Your task to perform on an android device: set default search engine in the chrome app Image 0: 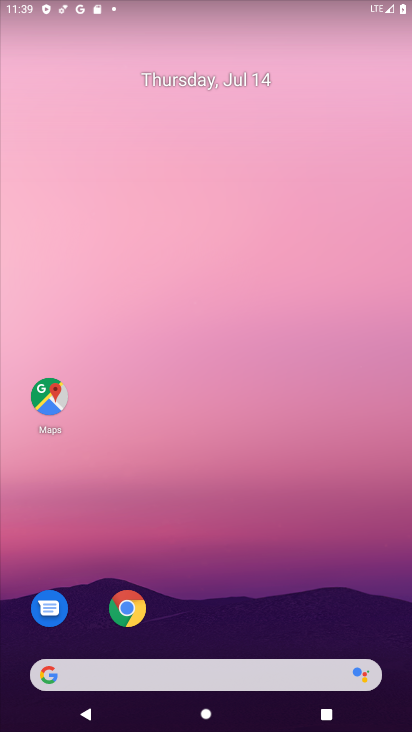
Step 0: drag from (282, 310) to (77, 22)
Your task to perform on an android device: set default search engine in the chrome app Image 1: 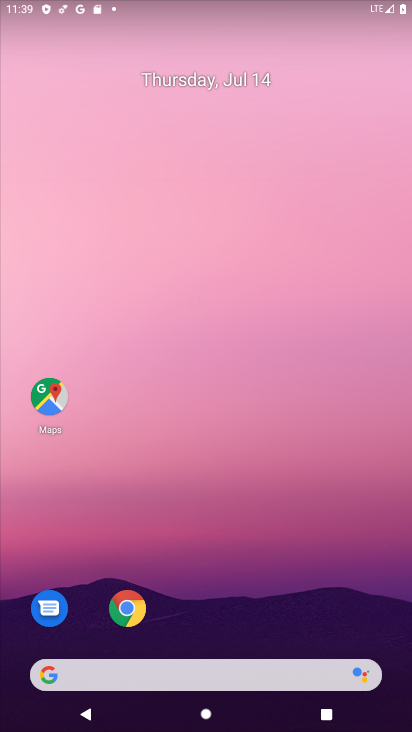
Step 1: drag from (279, 560) to (273, 0)
Your task to perform on an android device: set default search engine in the chrome app Image 2: 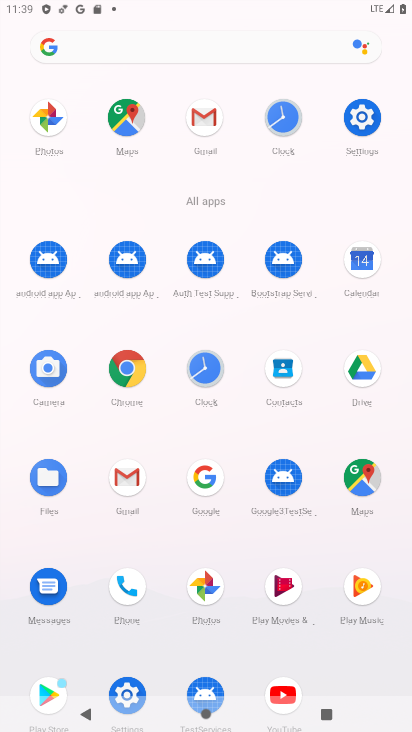
Step 2: click (128, 369)
Your task to perform on an android device: set default search engine in the chrome app Image 3: 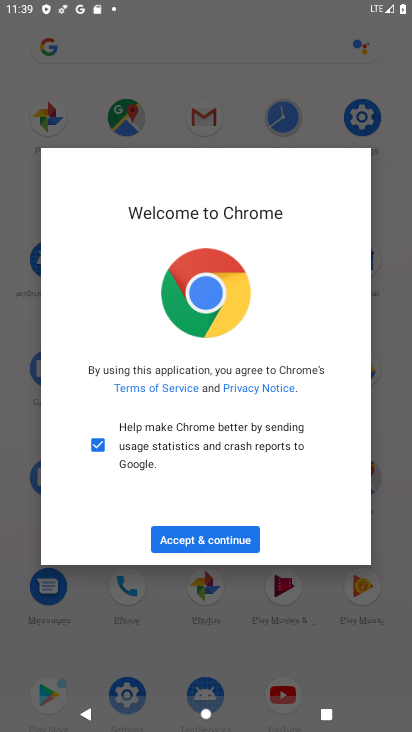
Step 3: click (191, 544)
Your task to perform on an android device: set default search engine in the chrome app Image 4: 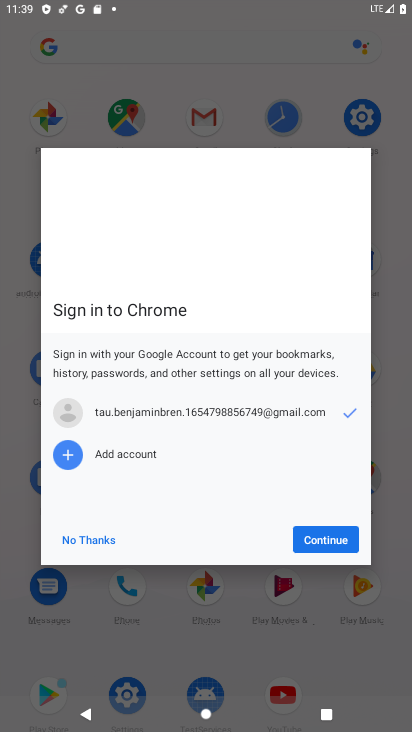
Step 4: click (95, 537)
Your task to perform on an android device: set default search engine in the chrome app Image 5: 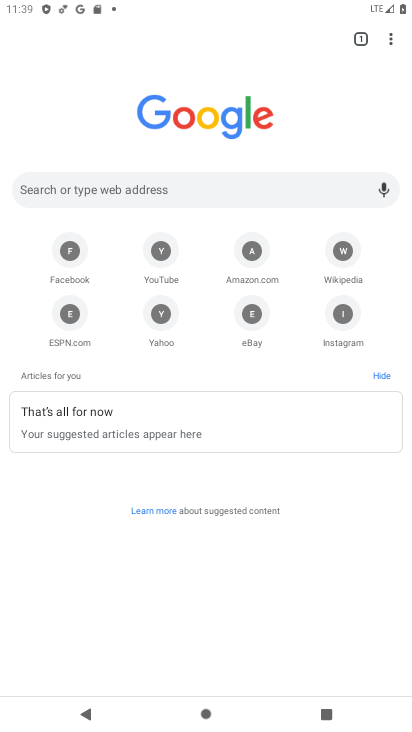
Step 5: drag from (395, 34) to (250, 328)
Your task to perform on an android device: set default search engine in the chrome app Image 6: 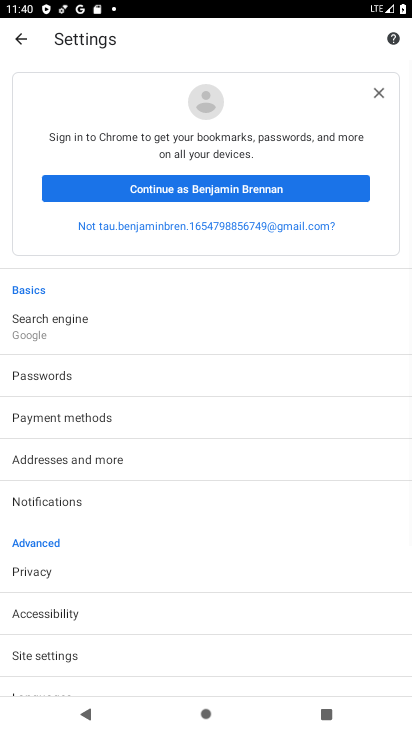
Step 6: click (32, 324)
Your task to perform on an android device: set default search engine in the chrome app Image 7: 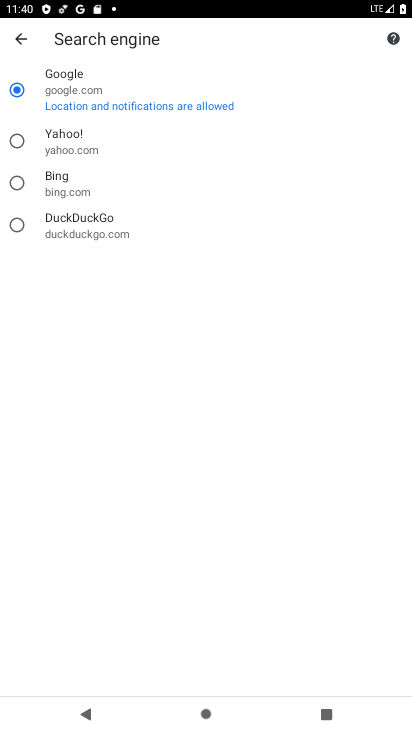
Step 7: task complete